Your task to perform on an android device: change alarm snooze length Image 0: 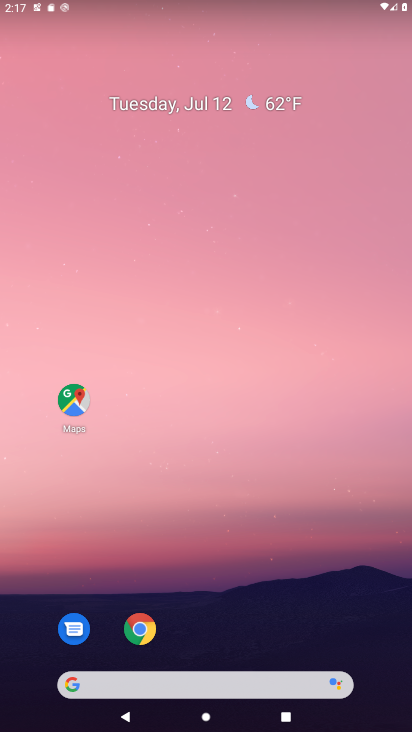
Step 0: drag from (217, 660) to (218, 42)
Your task to perform on an android device: change alarm snooze length Image 1: 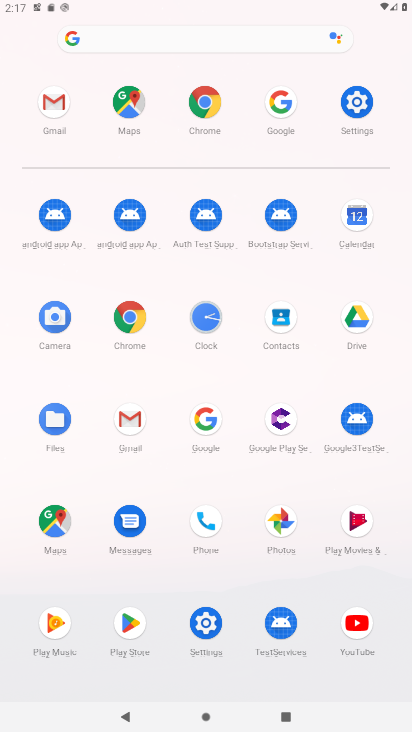
Step 1: click (207, 311)
Your task to perform on an android device: change alarm snooze length Image 2: 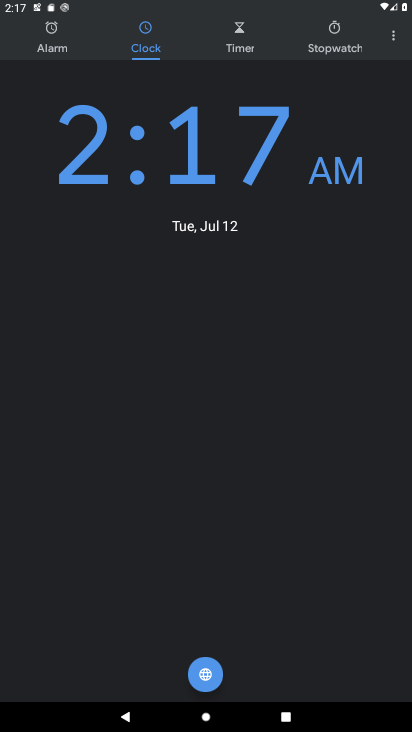
Step 2: click (390, 35)
Your task to perform on an android device: change alarm snooze length Image 3: 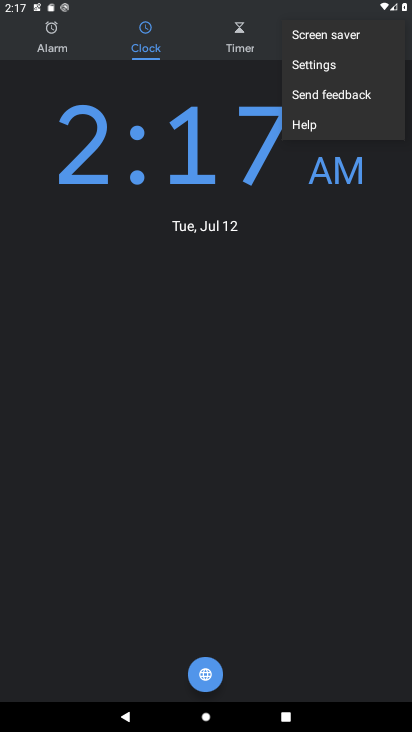
Step 3: click (333, 65)
Your task to perform on an android device: change alarm snooze length Image 4: 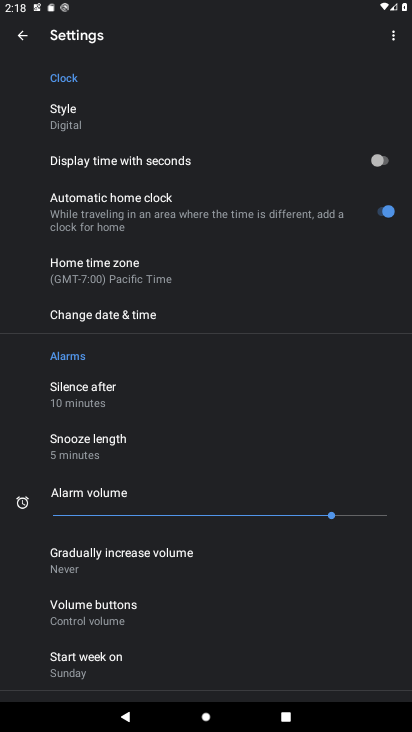
Step 4: click (139, 438)
Your task to perform on an android device: change alarm snooze length Image 5: 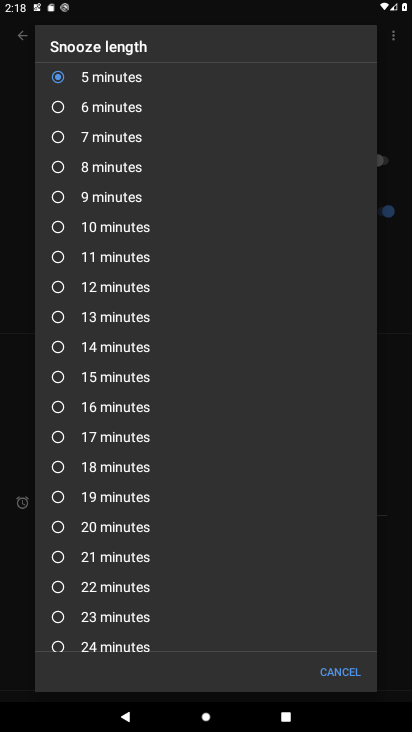
Step 5: click (59, 109)
Your task to perform on an android device: change alarm snooze length Image 6: 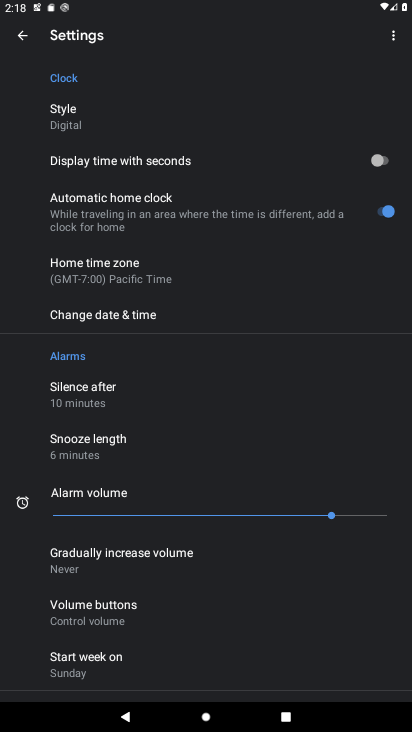
Step 6: task complete